Your task to perform on an android device: change the clock display to show seconds Image 0: 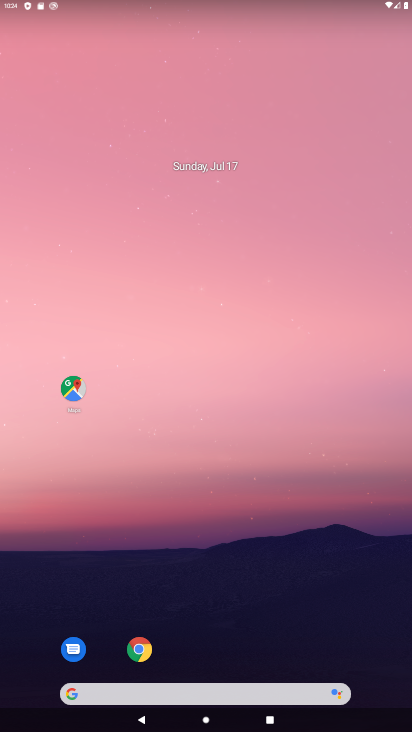
Step 0: drag from (225, 652) to (288, 99)
Your task to perform on an android device: change the clock display to show seconds Image 1: 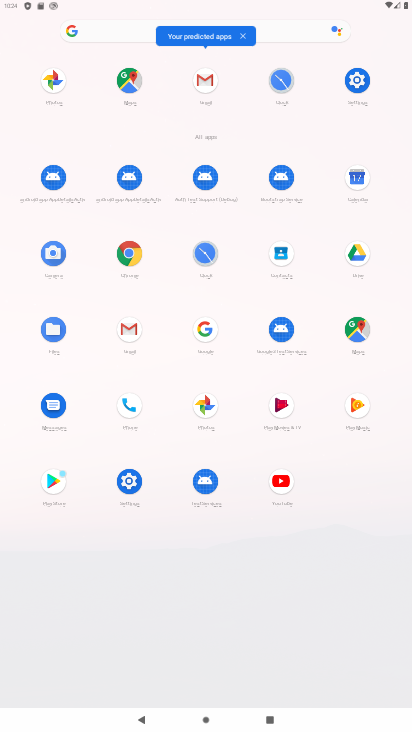
Step 1: click (208, 253)
Your task to perform on an android device: change the clock display to show seconds Image 2: 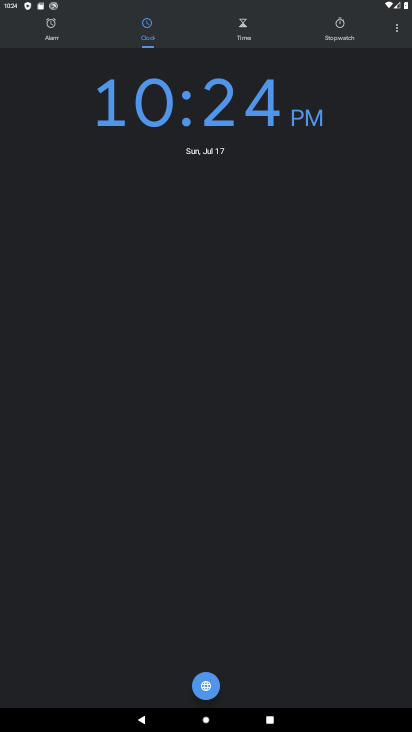
Step 2: click (395, 25)
Your task to perform on an android device: change the clock display to show seconds Image 3: 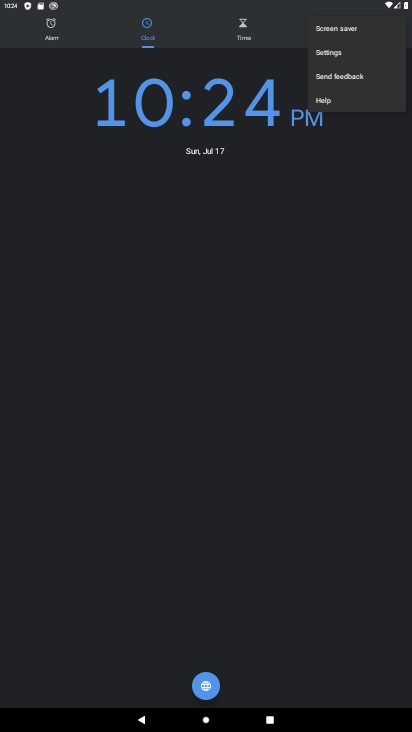
Step 3: click (335, 61)
Your task to perform on an android device: change the clock display to show seconds Image 4: 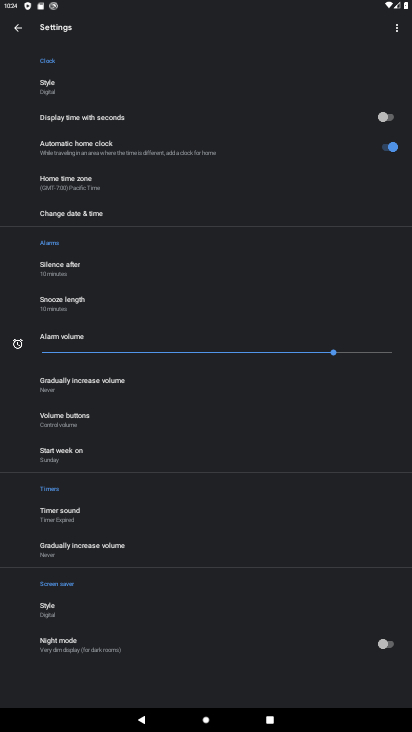
Step 4: click (369, 114)
Your task to perform on an android device: change the clock display to show seconds Image 5: 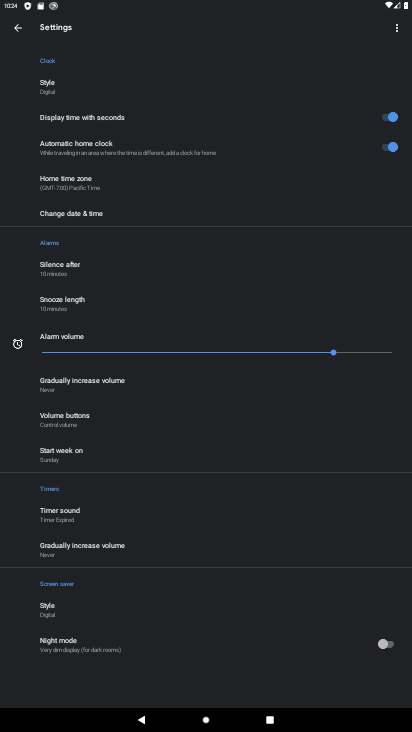
Step 5: task complete